Your task to perform on an android device: manage bookmarks in the chrome app Image 0: 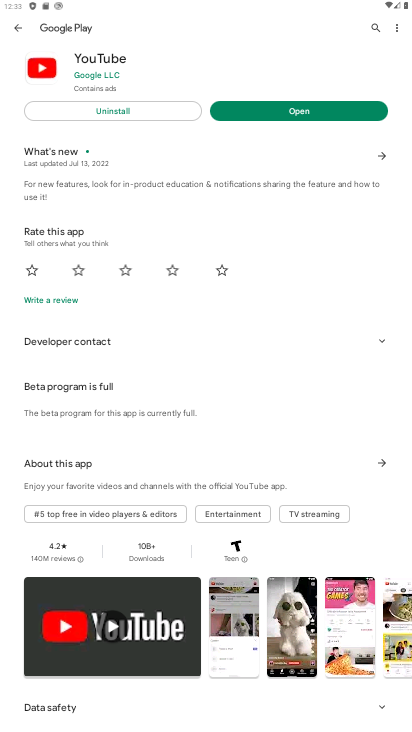
Step 0: press home button
Your task to perform on an android device: manage bookmarks in the chrome app Image 1: 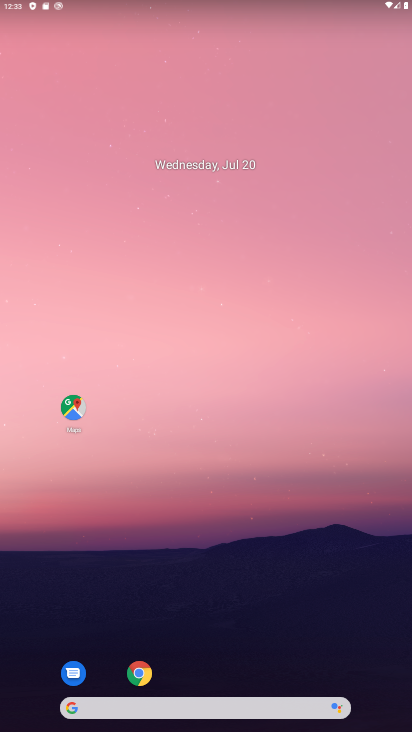
Step 1: click (130, 674)
Your task to perform on an android device: manage bookmarks in the chrome app Image 2: 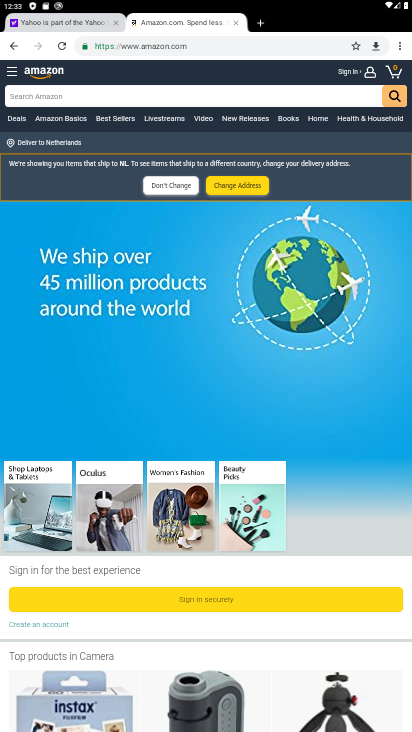
Step 2: click (407, 53)
Your task to perform on an android device: manage bookmarks in the chrome app Image 3: 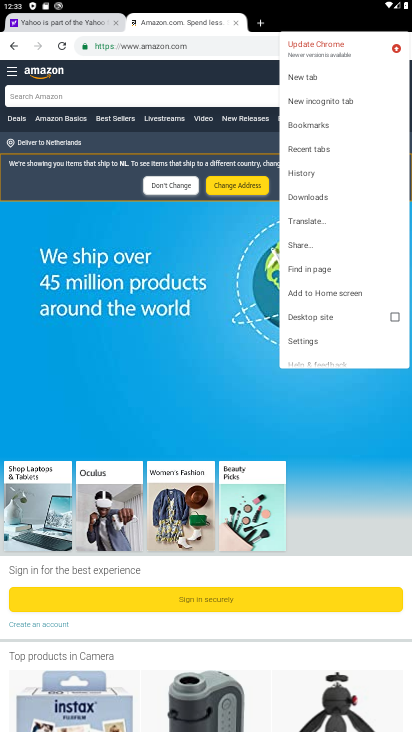
Step 3: click (339, 129)
Your task to perform on an android device: manage bookmarks in the chrome app Image 4: 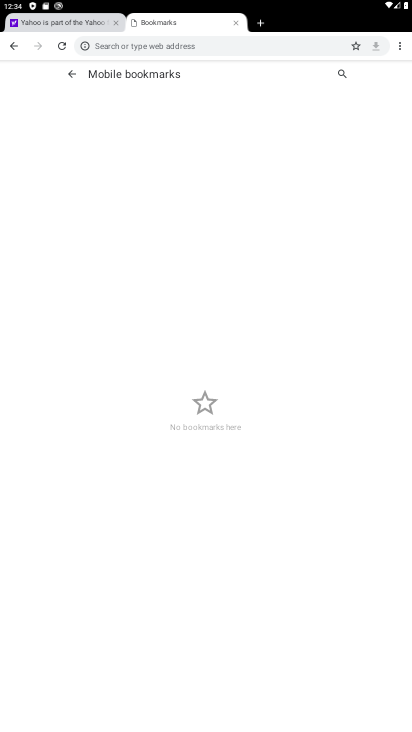
Step 4: task complete